Your task to perform on an android device: Search for vegetarian restaurants on Maps Image 0: 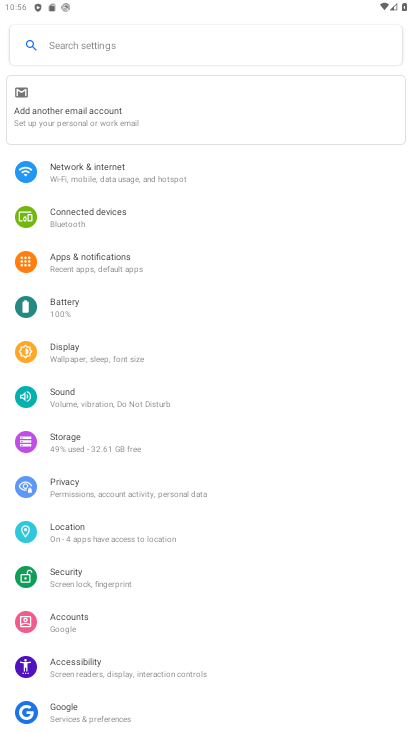
Step 0: press home button
Your task to perform on an android device: Search for vegetarian restaurants on Maps Image 1: 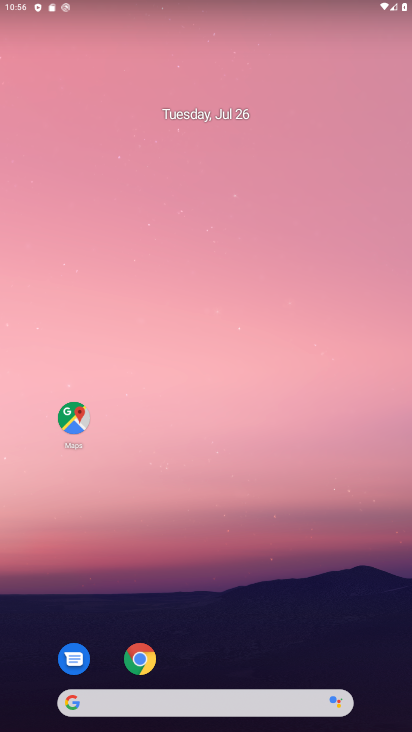
Step 1: click (72, 421)
Your task to perform on an android device: Search for vegetarian restaurants on Maps Image 2: 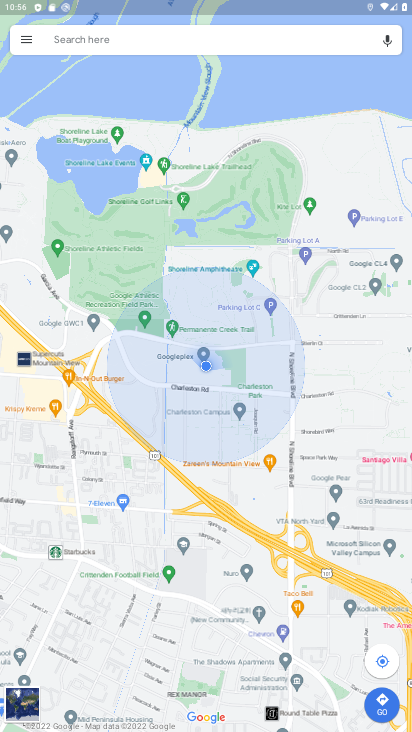
Step 2: click (109, 42)
Your task to perform on an android device: Search for vegetarian restaurants on Maps Image 3: 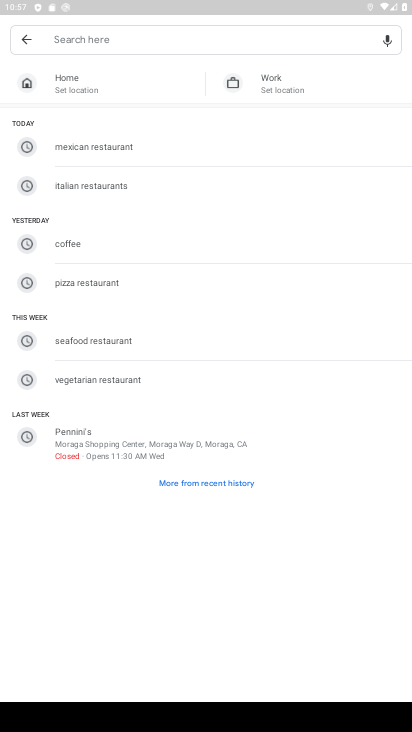
Step 3: type "vegetarian restaurants"
Your task to perform on an android device: Search for vegetarian restaurants on Maps Image 4: 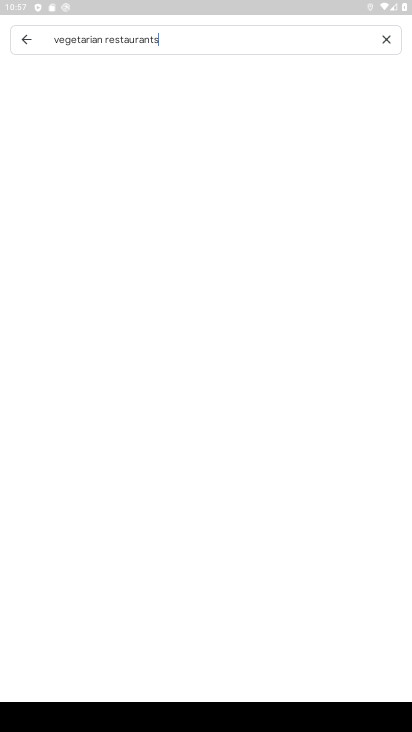
Step 4: type ""
Your task to perform on an android device: Search for vegetarian restaurants on Maps Image 5: 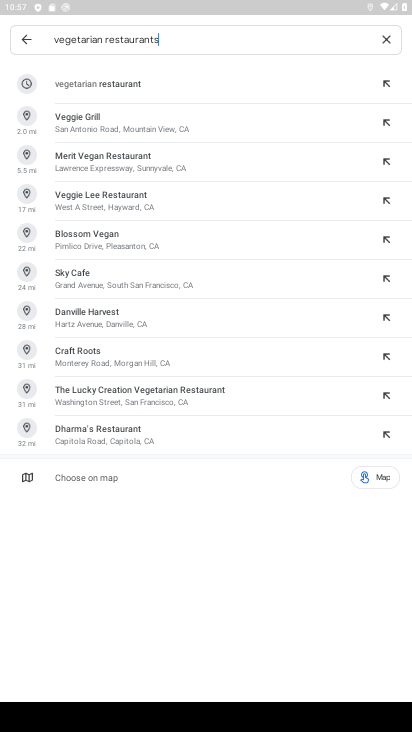
Step 5: click (116, 85)
Your task to perform on an android device: Search for vegetarian restaurants on Maps Image 6: 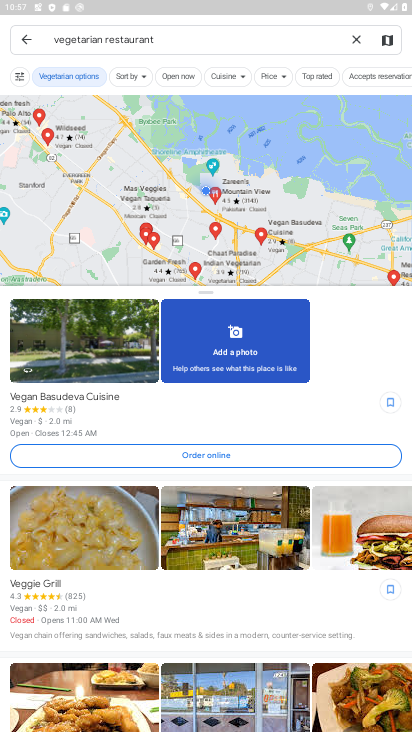
Step 6: task complete